Your task to perform on an android device: turn pop-ups off in chrome Image 0: 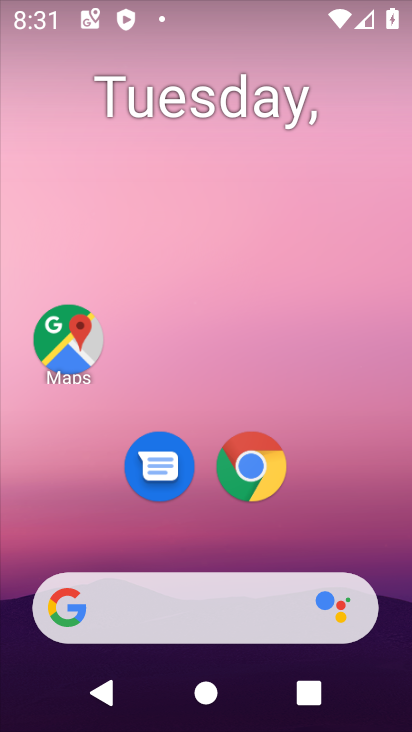
Step 0: click (272, 470)
Your task to perform on an android device: turn pop-ups off in chrome Image 1: 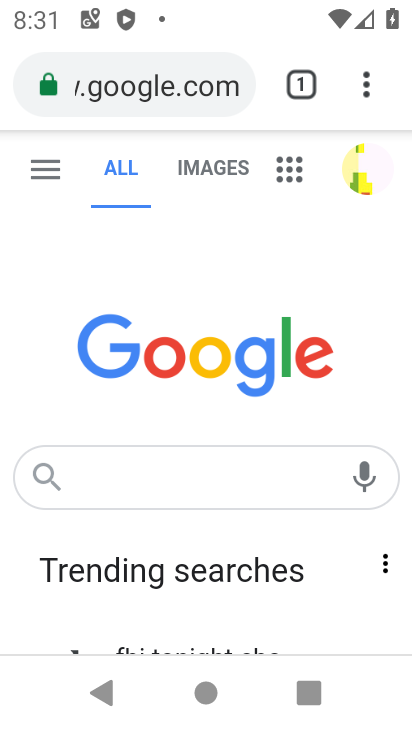
Step 1: click (374, 89)
Your task to perform on an android device: turn pop-ups off in chrome Image 2: 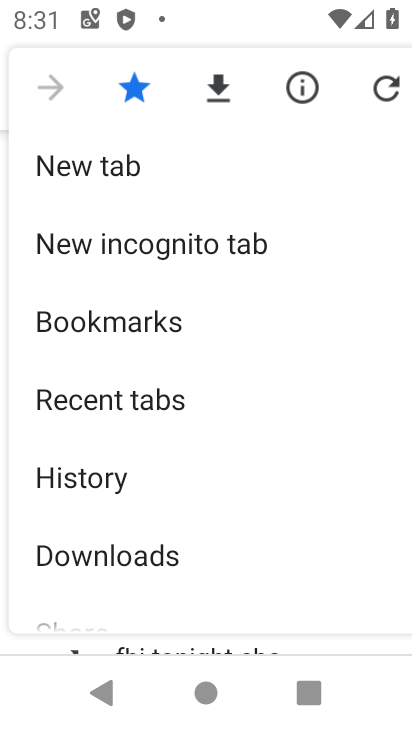
Step 2: drag from (203, 552) to (209, 186)
Your task to perform on an android device: turn pop-ups off in chrome Image 3: 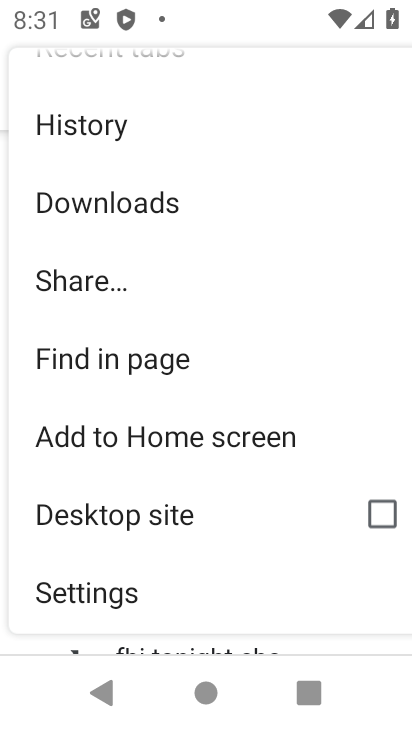
Step 3: click (234, 575)
Your task to perform on an android device: turn pop-ups off in chrome Image 4: 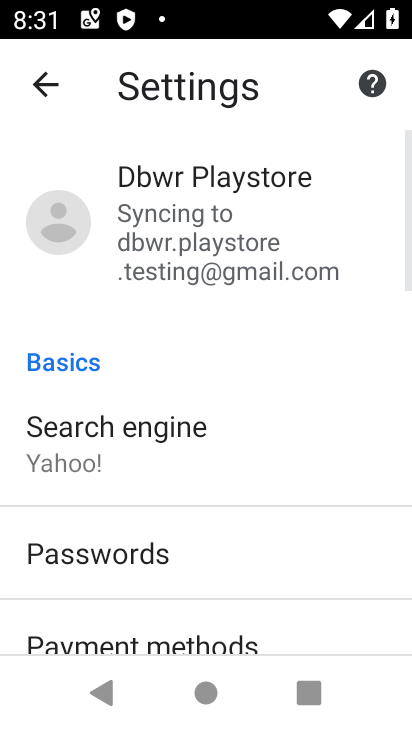
Step 4: drag from (234, 575) to (241, 405)
Your task to perform on an android device: turn pop-ups off in chrome Image 5: 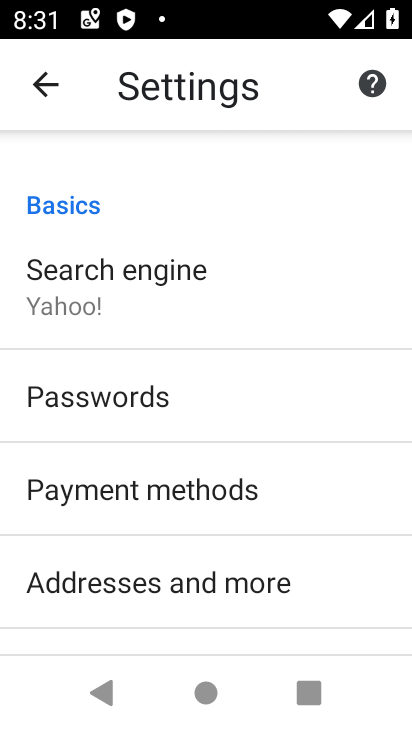
Step 5: drag from (170, 581) to (182, 383)
Your task to perform on an android device: turn pop-ups off in chrome Image 6: 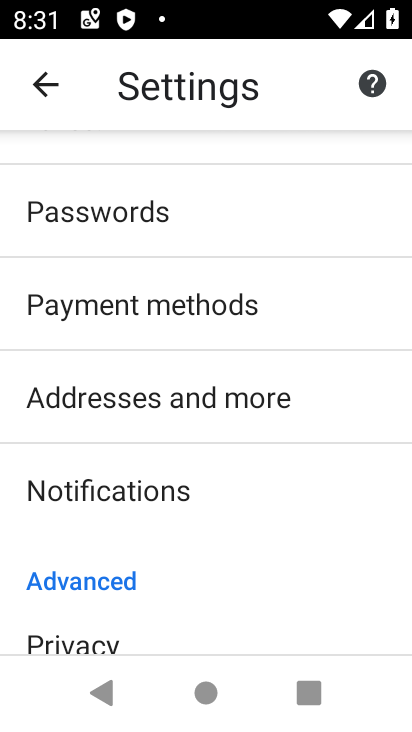
Step 6: drag from (238, 589) to (262, 465)
Your task to perform on an android device: turn pop-ups off in chrome Image 7: 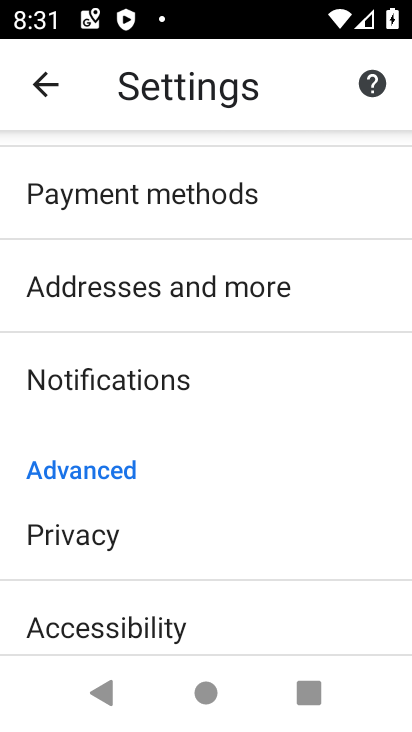
Step 7: drag from (208, 549) to (246, 407)
Your task to perform on an android device: turn pop-ups off in chrome Image 8: 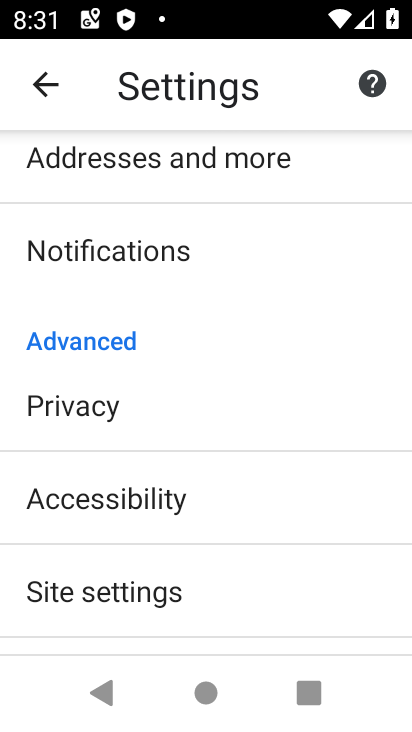
Step 8: click (208, 572)
Your task to perform on an android device: turn pop-ups off in chrome Image 9: 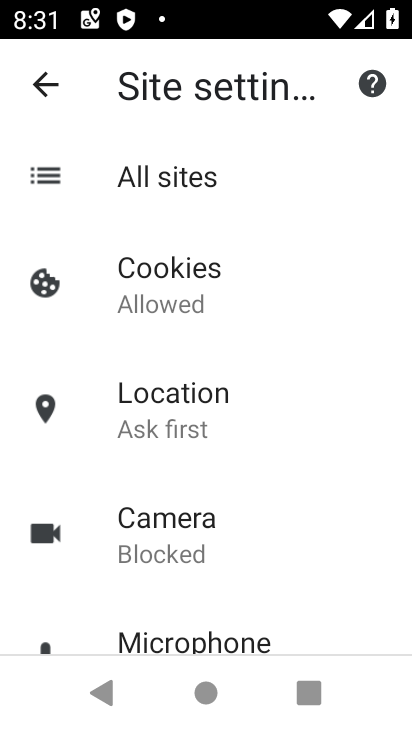
Step 9: click (48, 91)
Your task to perform on an android device: turn pop-ups off in chrome Image 10: 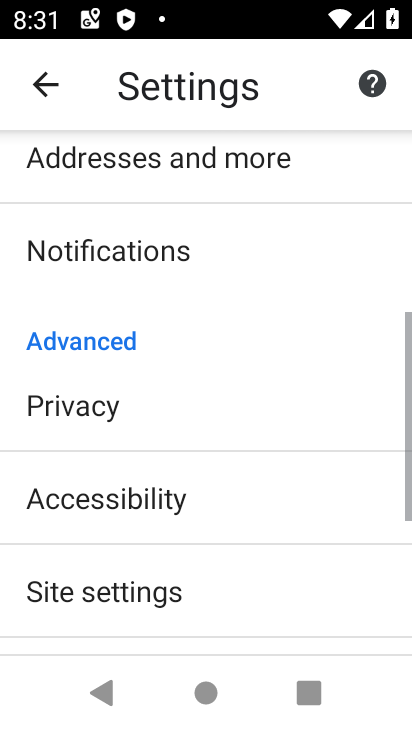
Step 10: drag from (208, 558) to (223, 373)
Your task to perform on an android device: turn pop-ups off in chrome Image 11: 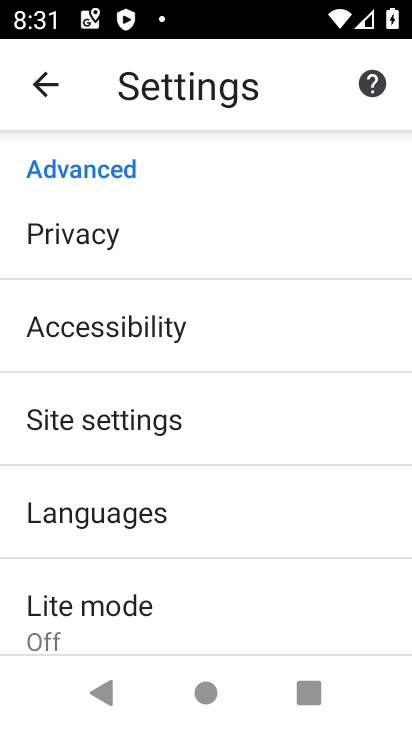
Step 11: click (243, 530)
Your task to perform on an android device: turn pop-ups off in chrome Image 12: 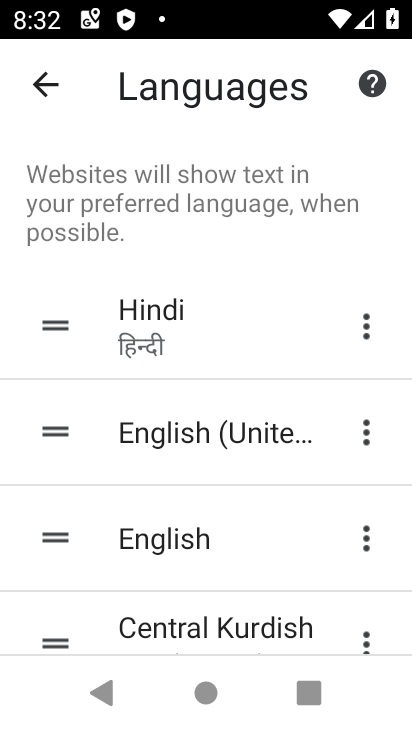
Step 12: task complete